Your task to perform on an android device: Play the last video I watched on Youtube Image 0: 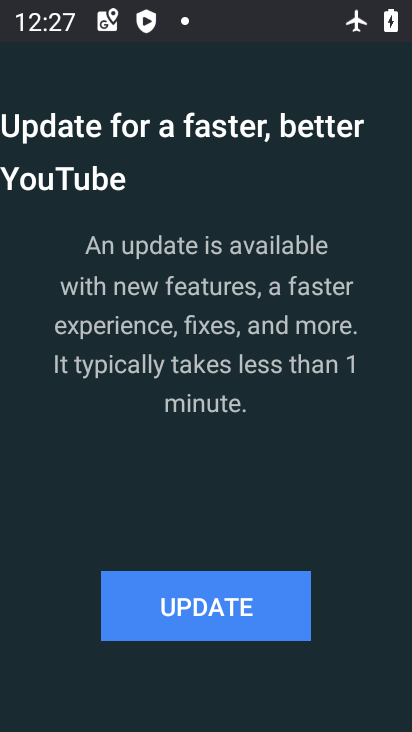
Step 0: task impossible